Your task to perform on an android device: toggle javascript in the chrome app Image 0: 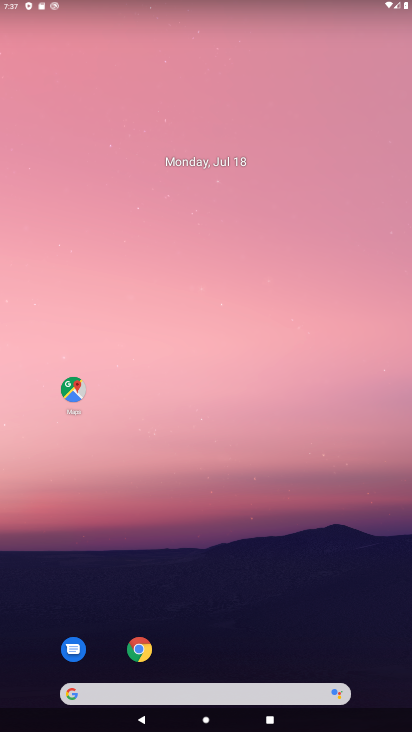
Step 0: drag from (288, 604) to (233, 169)
Your task to perform on an android device: toggle javascript in the chrome app Image 1: 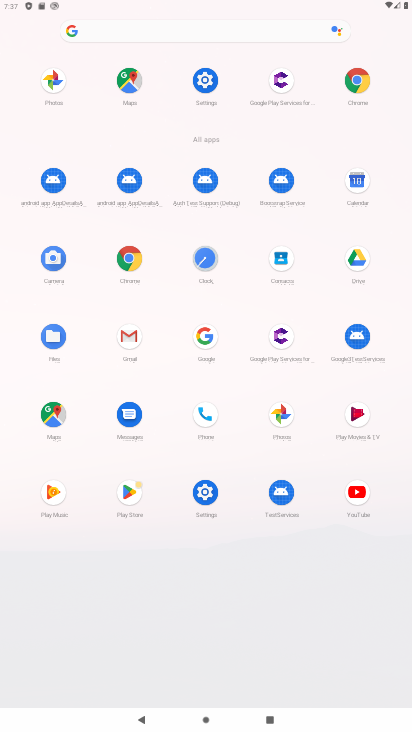
Step 1: click (132, 259)
Your task to perform on an android device: toggle javascript in the chrome app Image 2: 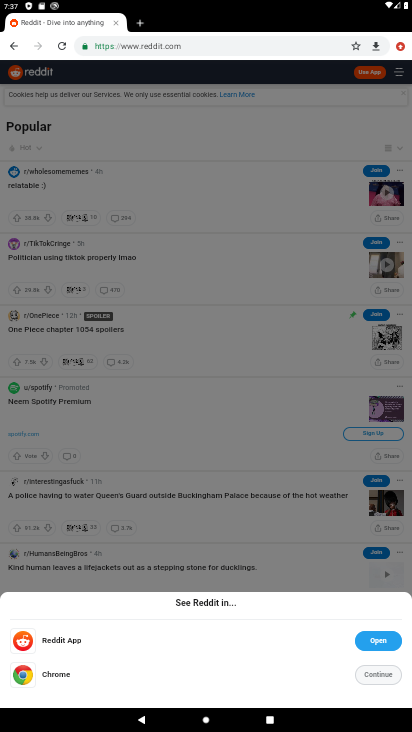
Step 2: drag from (409, 45) to (324, 337)
Your task to perform on an android device: toggle javascript in the chrome app Image 3: 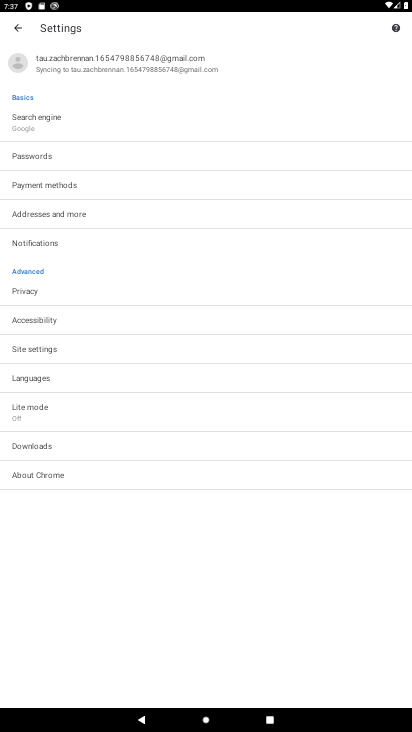
Step 3: click (22, 350)
Your task to perform on an android device: toggle javascript in the chrome app Image 4: 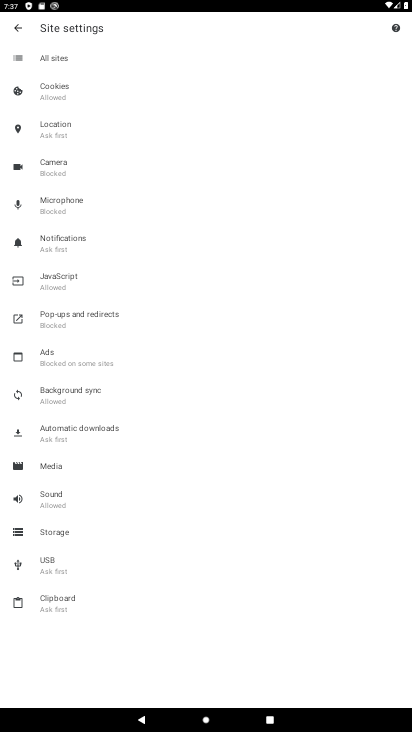
Step 4: click (72, 273)
Your task to perform on an android device: toggle javascript in the chrome app Image 5: 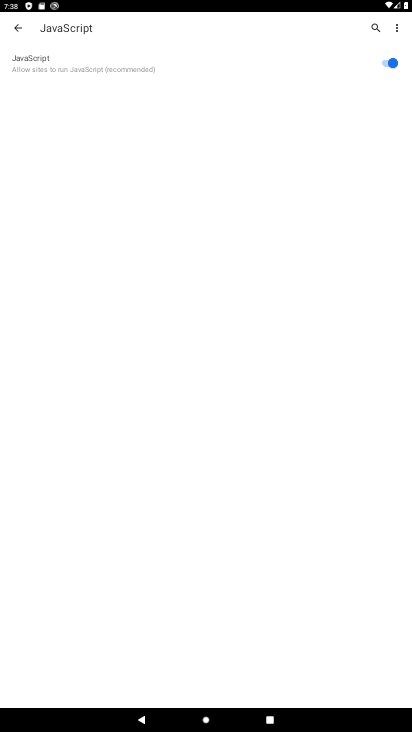
Step 5: click (388, 57)
Your task to perform on an android device: toggle javascript in the chrome app Image 6: 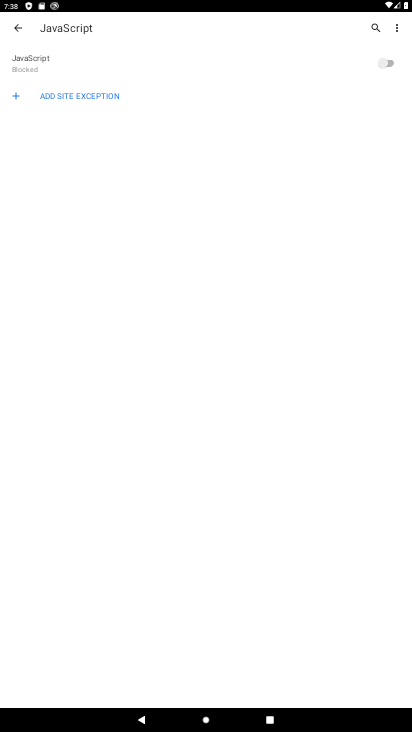
Step 6: task complete